Your task to perform on an android device: open app "Firefox Browser" (install if not already installed) Image 0: 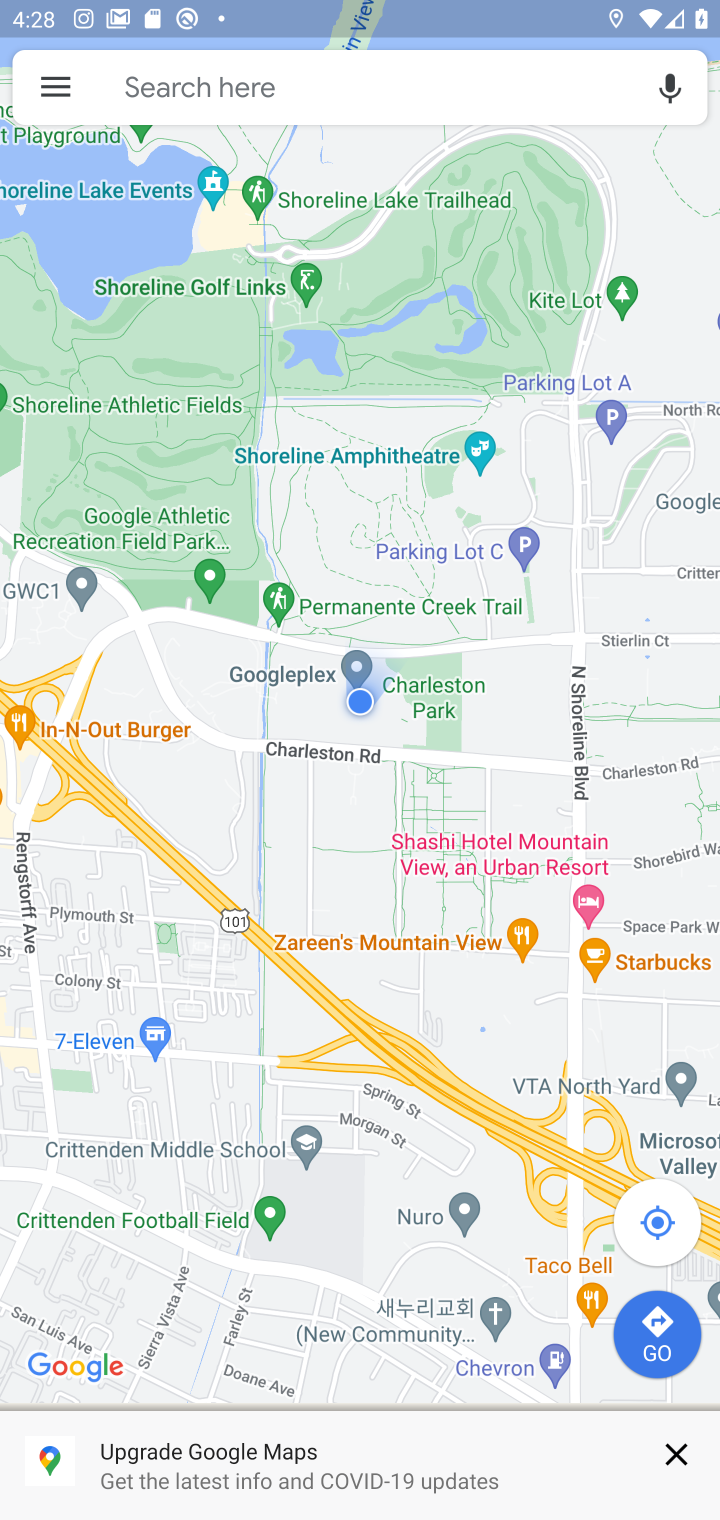
Step 0: press home button
Your task to perform on an android device: open app "Firefox Browser" (install if not already installed) Image 1: 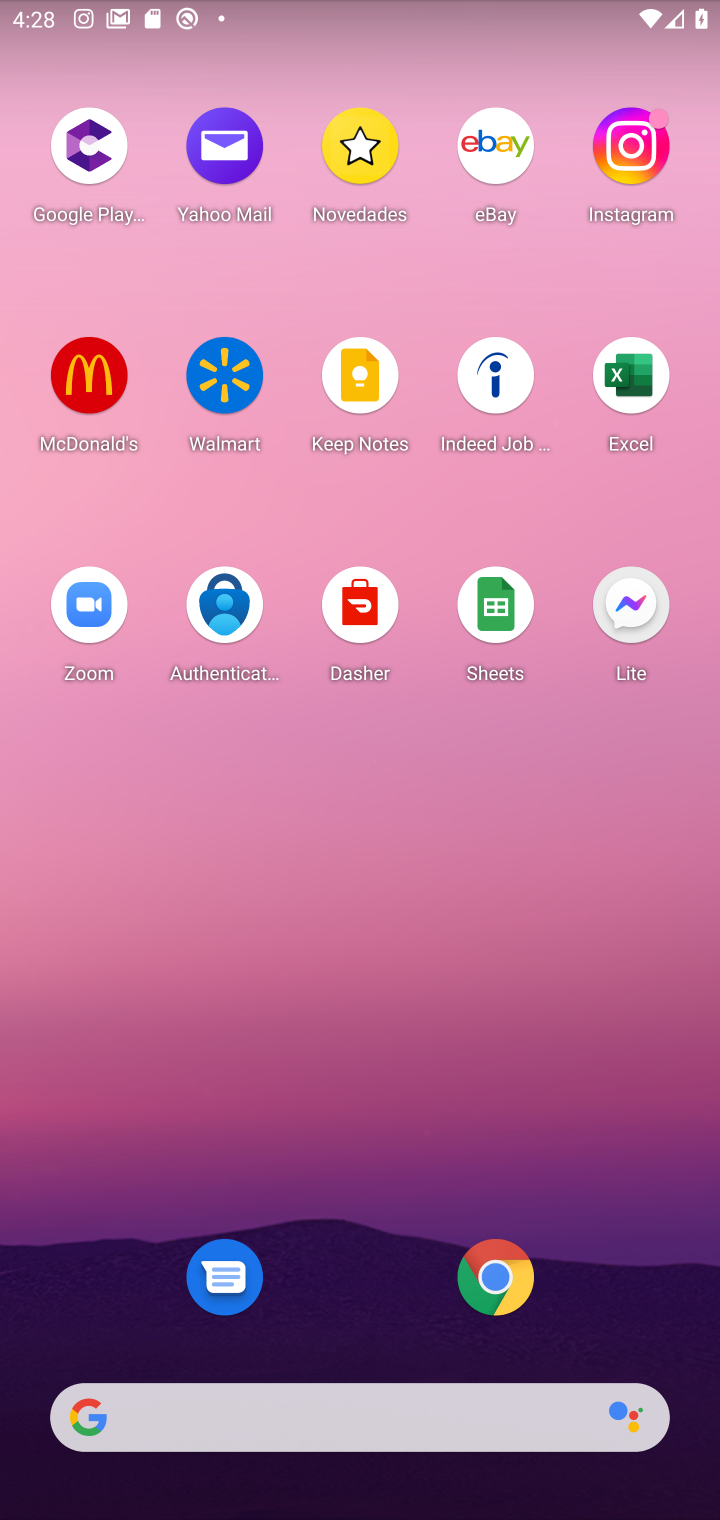
Step 1: drag from (544, 850) to (507, 14)
Your task to perform on an android device: open app "Firefox Browser" (install if not already installed) Image 2: 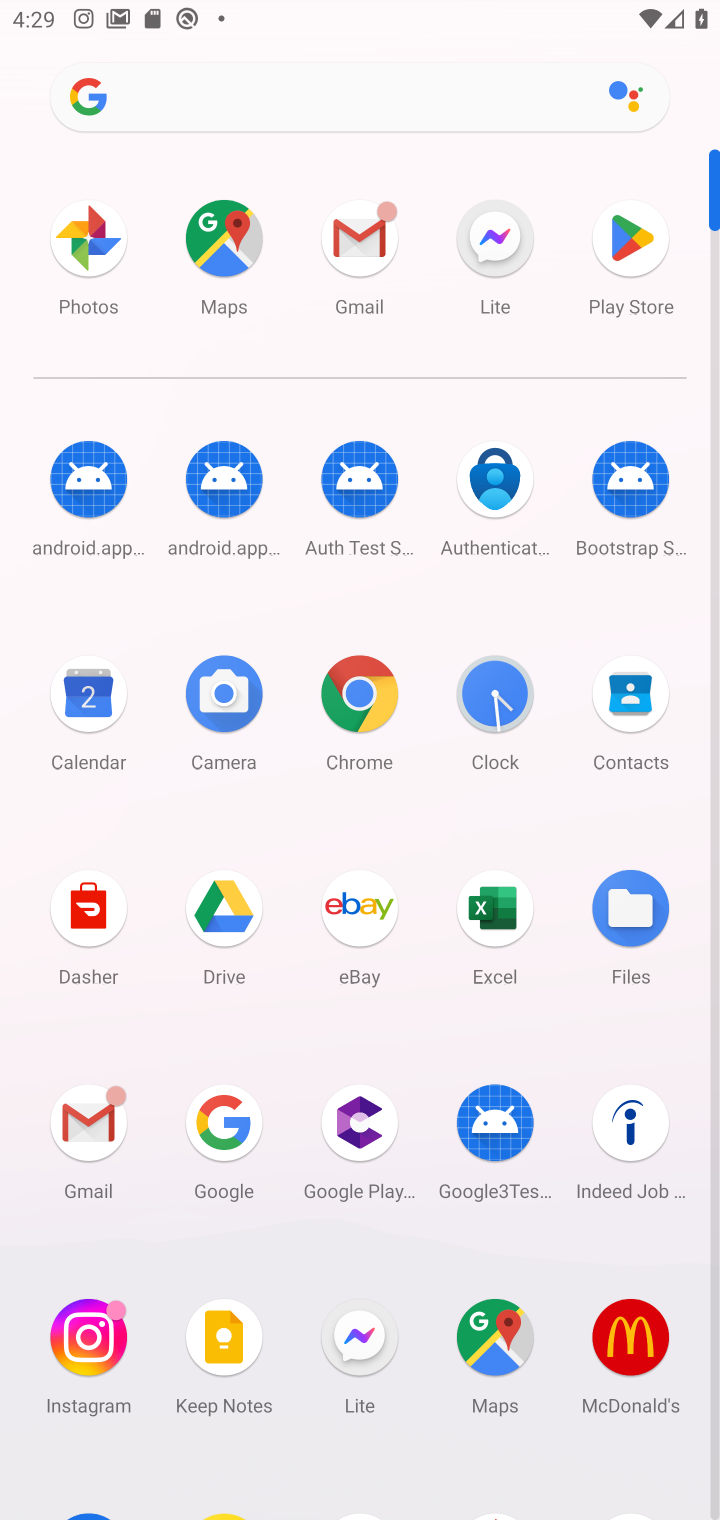
Step 2: click (621, 248)
Your task to perform on an android device: open app "Firefox Browser" (install if not already installed) Image 3: 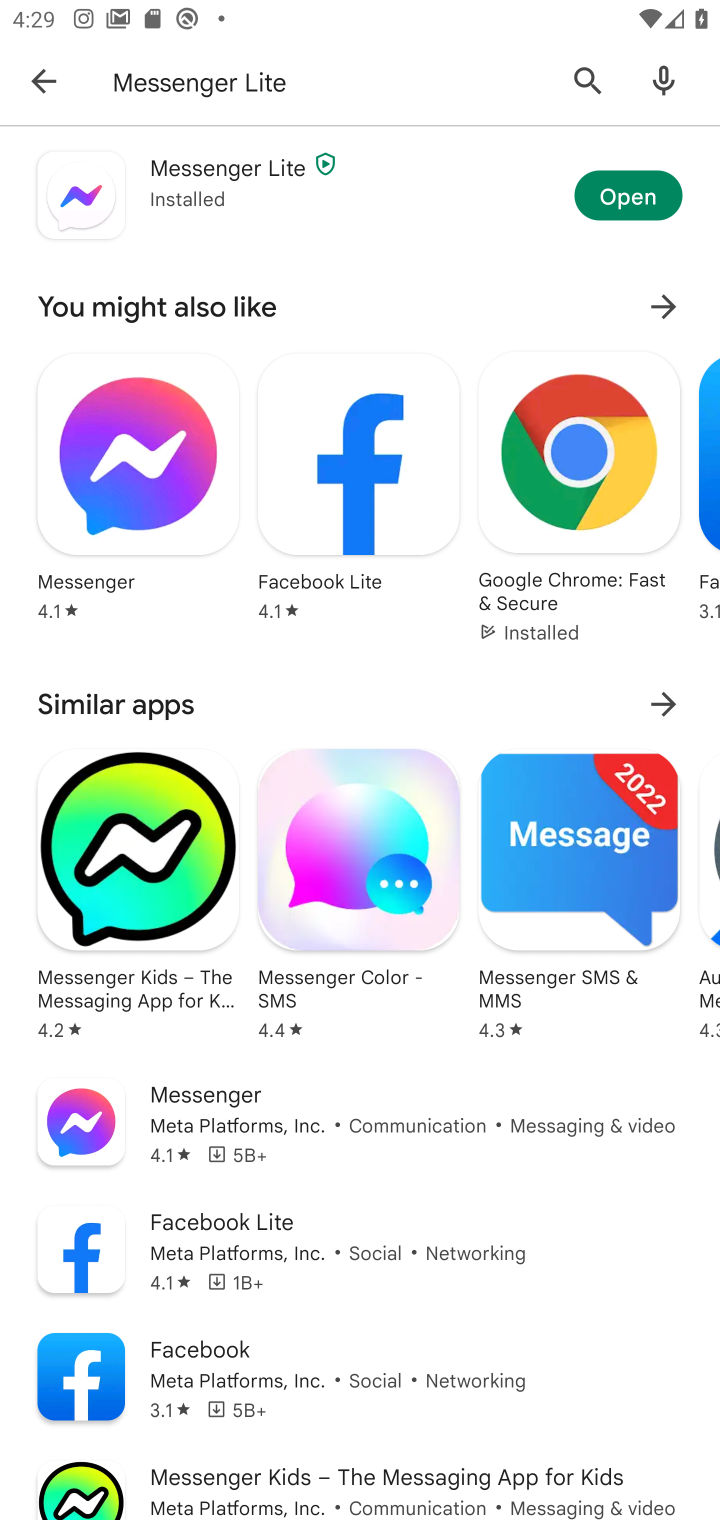
Step 3: click (400, 70)
Your task to perform on an android device: open app "Firefox Browser" (install if not already installed) Image 4: 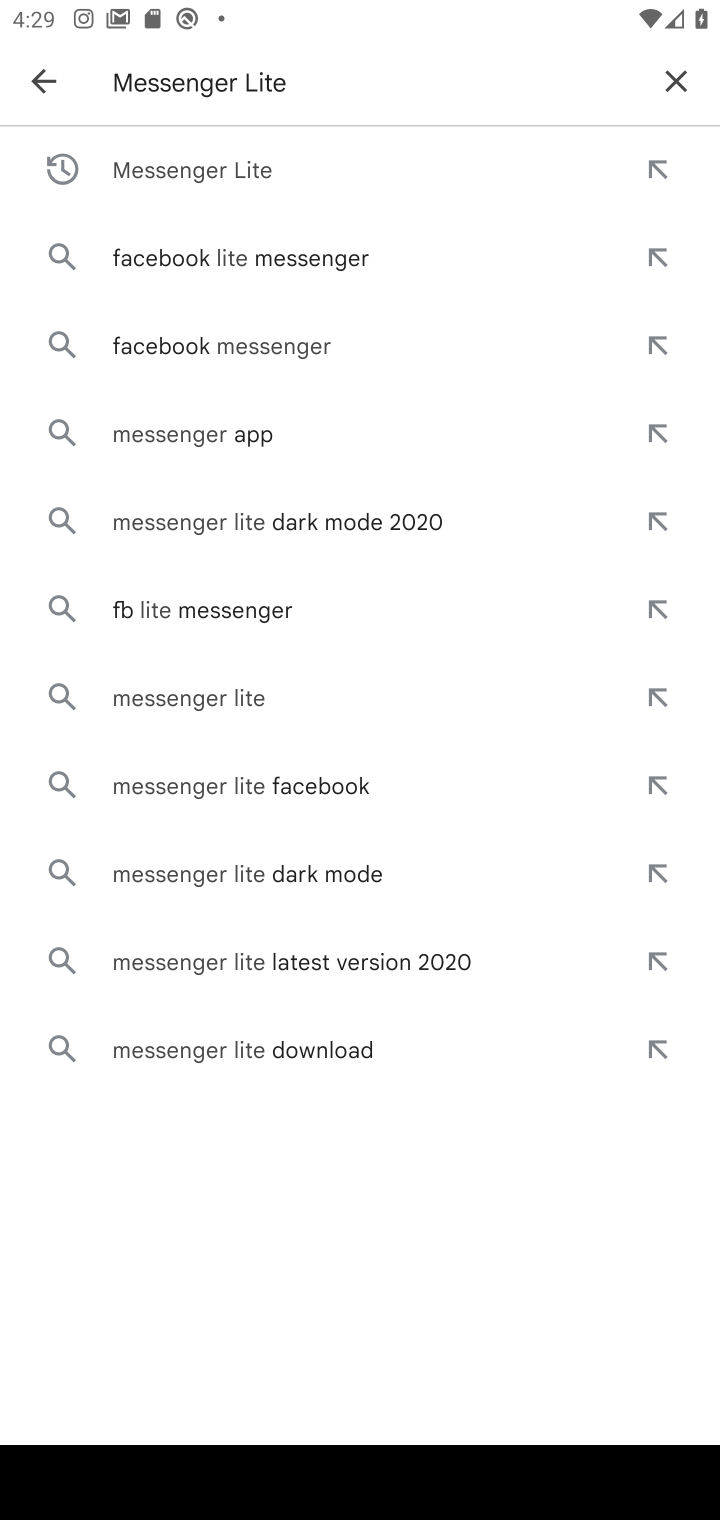
Step 4: click (662, 67)
Your task to perform on an android device: open app "Firefox Browser" (install if not already installed) Image 5: 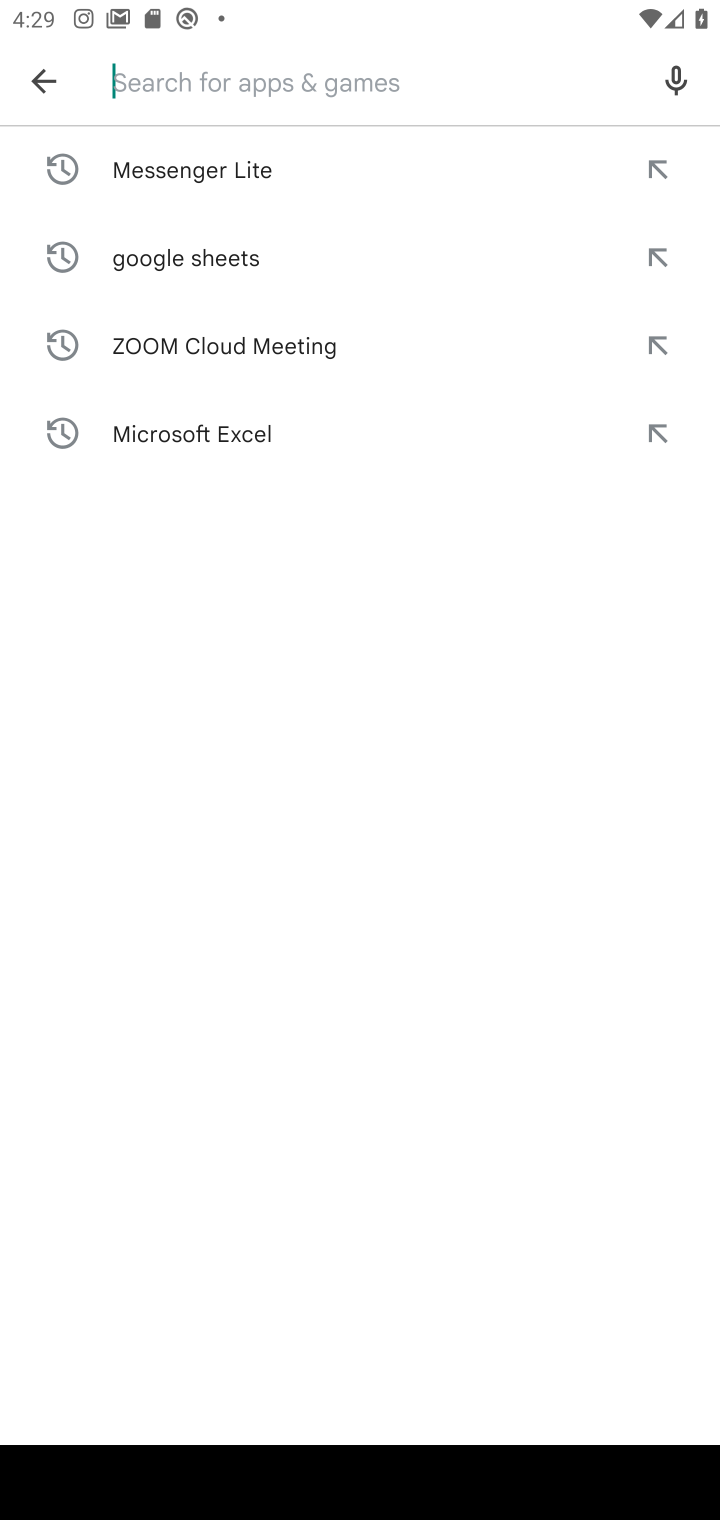
Step 5: type "FireFox Browser"
Your task to perform on an android device: open app "Firefox Browser" (install if not already installed) Image 6: 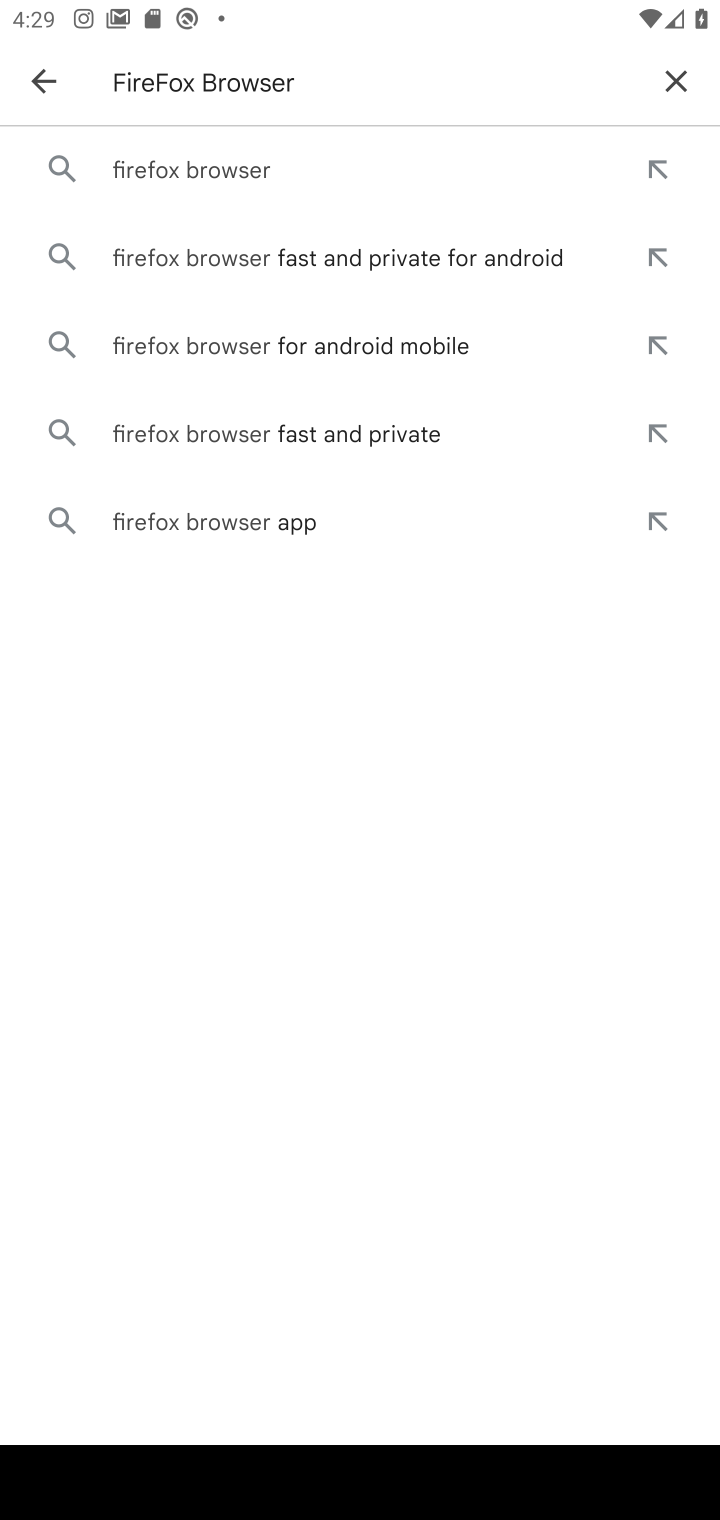
Step 6: press enter
Your task to perform on an android device: open app "Firefox Browser" (install if not already installed) Image 7: 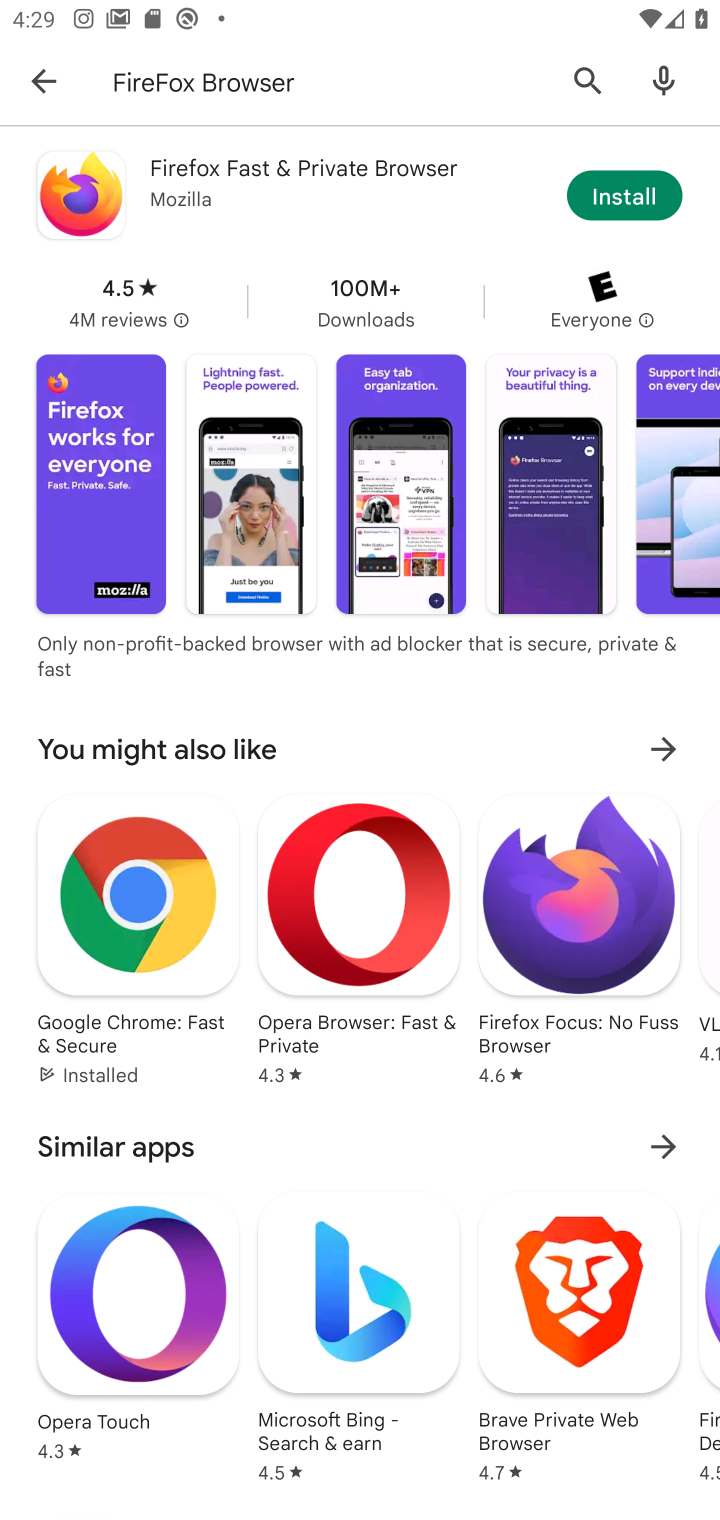
Step 7: click (619, 186)
Your task to perform on an android device: open app "Firefox Browser" (install if not already installed) Image 8: 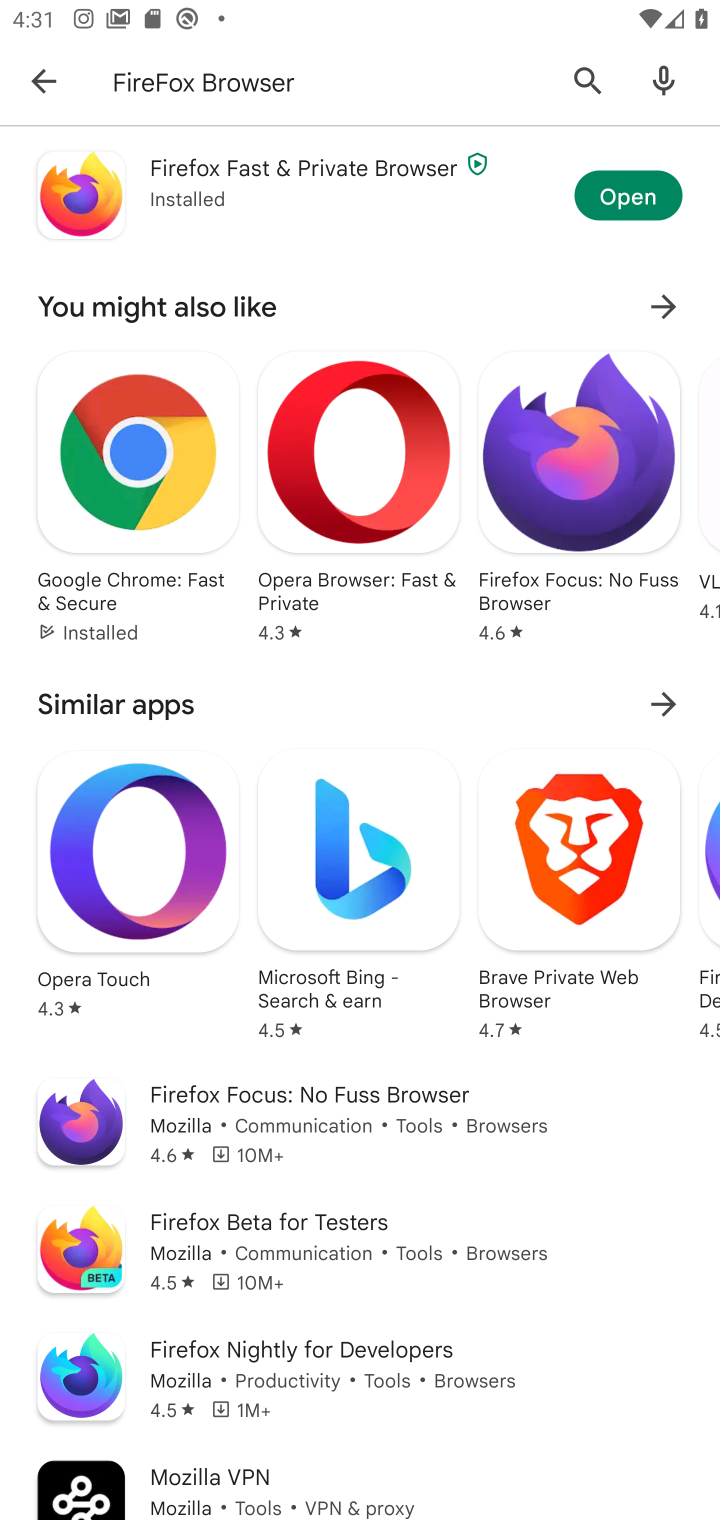
Step 8: click (616, 179)
Your task to perform on an android device: open app "Firefox Browser" (install if not already installed) Image 9: 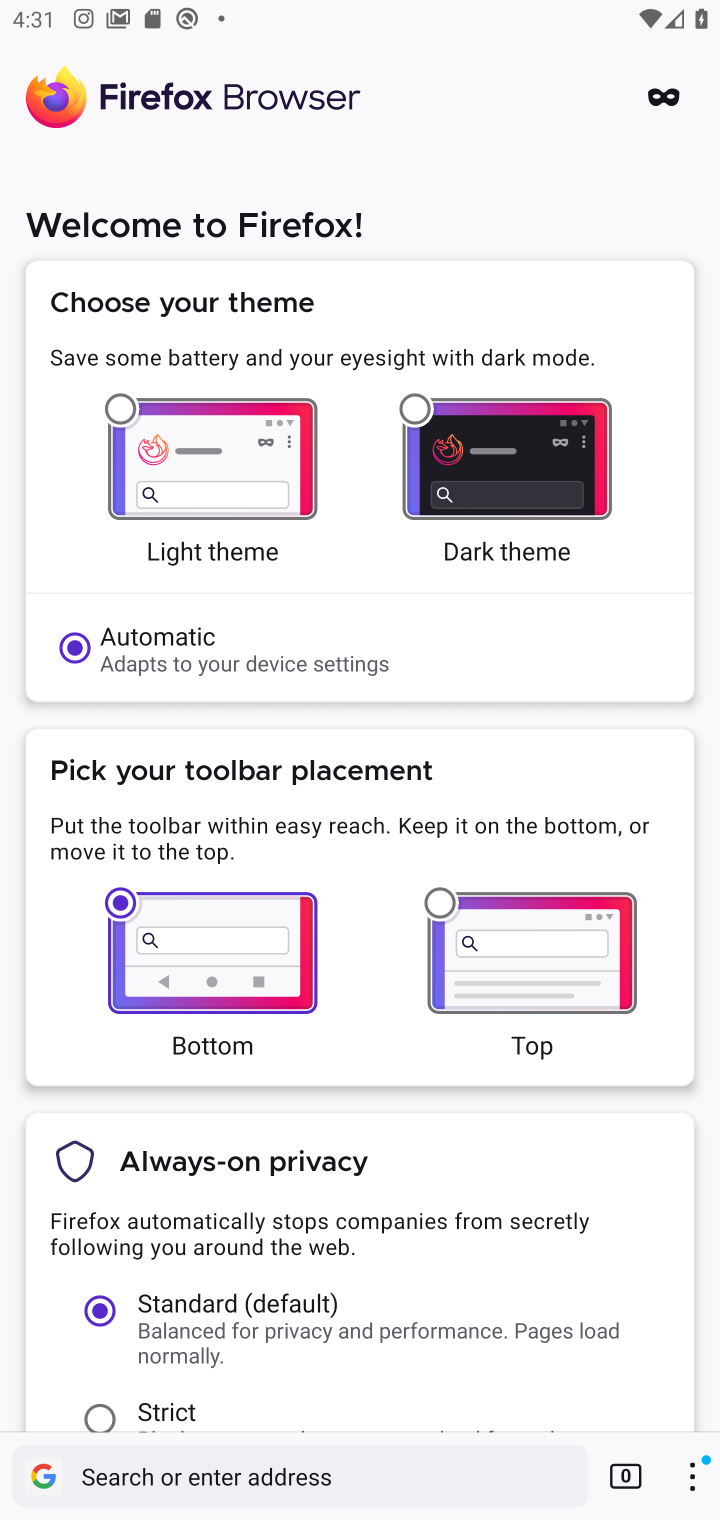
Step 9: task complete